Your task to perform on an android device: Go to Google maps Image 0: 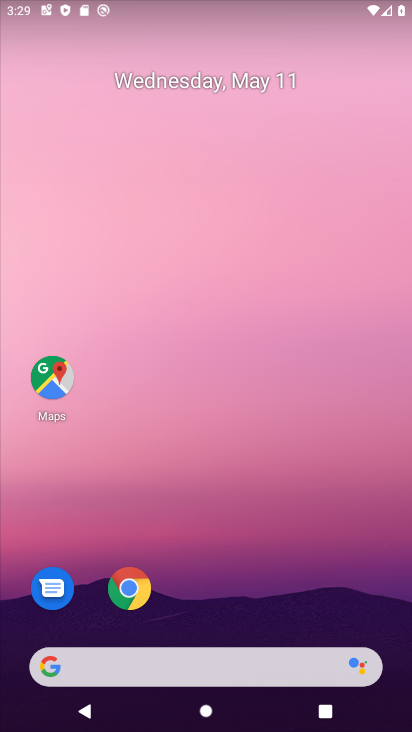
Step 0: click (214, 618)
Your task to perform on an android device: Go to Google maps Image 1: 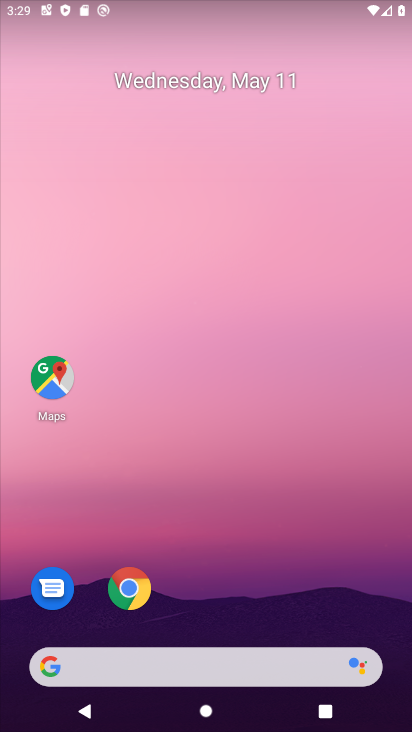
Step 1: click (61, 395)
Your task to perform on an android device: Go to Google maps Image 2: 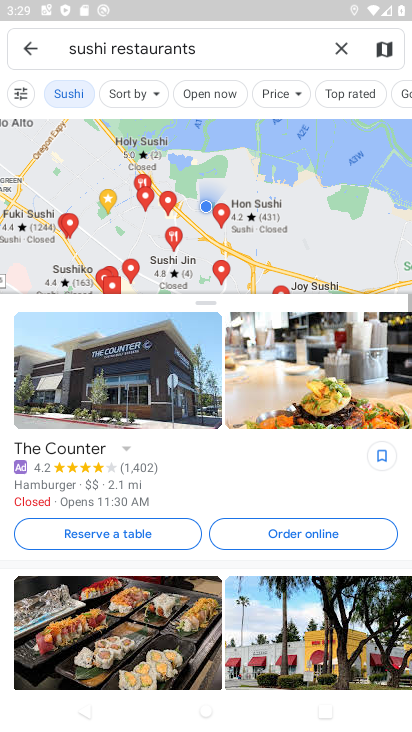
Step 2: click (46, 49)
Your task to perform on an android device: Go to Google maps Image 3: 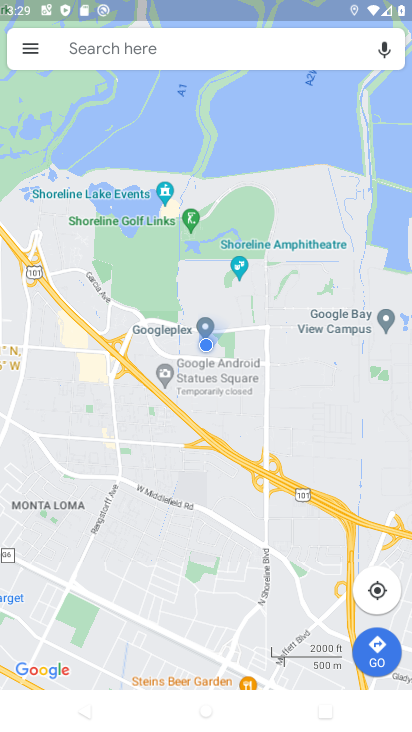
Step 3: task complete